Your task to perform on an android device: Open Google Chrome Image 0: 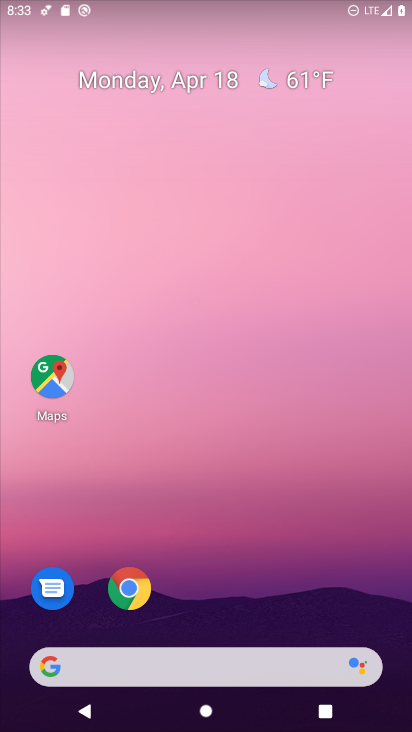
Step 0: click (127, 589)
Your task to perform on an android device: Open Google Chrome Image 1: 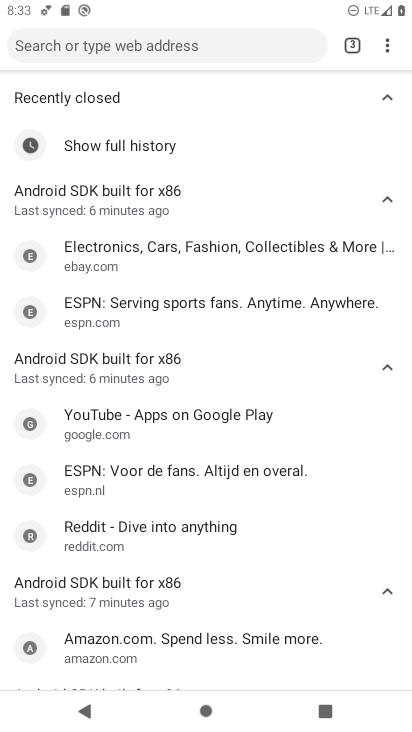
Step 1: task complete